Your task to perform on an android device: open app "AliExpress" (install if not already installed) Image 0: 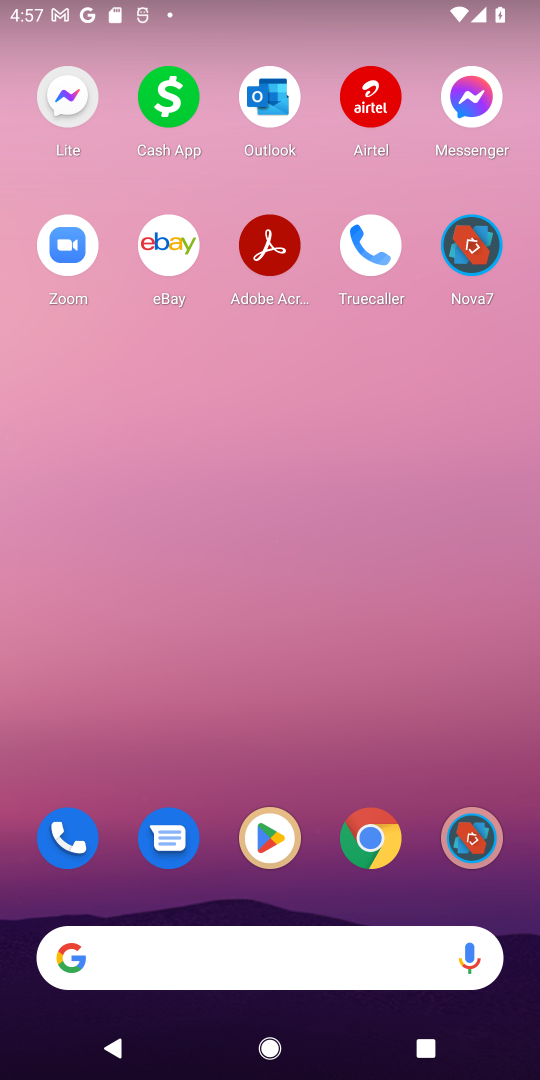
Step 0: drag from (239, 948) to (298, 88)
Your task to perform on an android device: open app "AliExpress" (install if not already installed) Image 1: 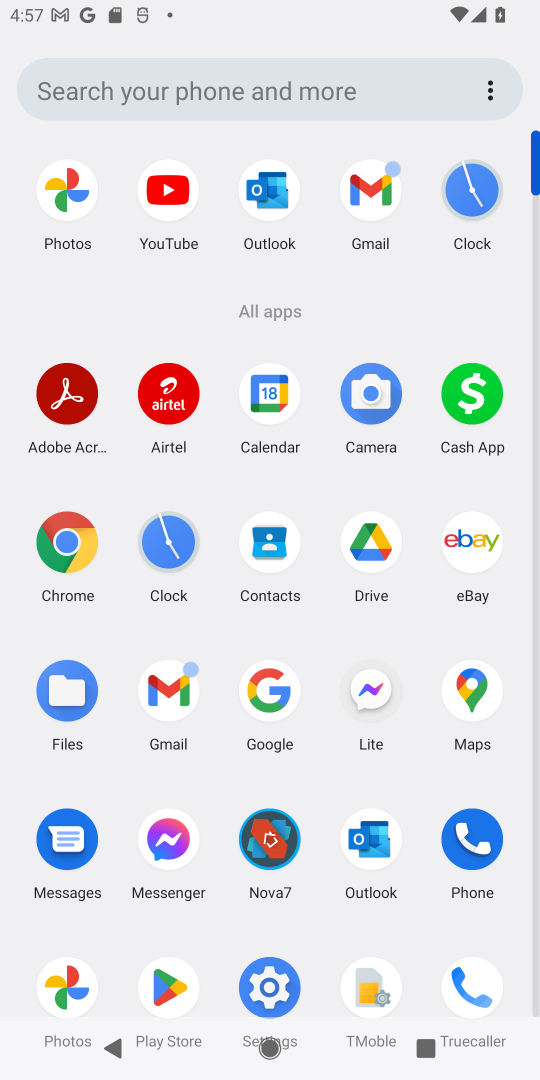
Step 1: click (164, 978)
Your task to perform on an android device: open app "AliExpress" (install if not already installed) Image 2: 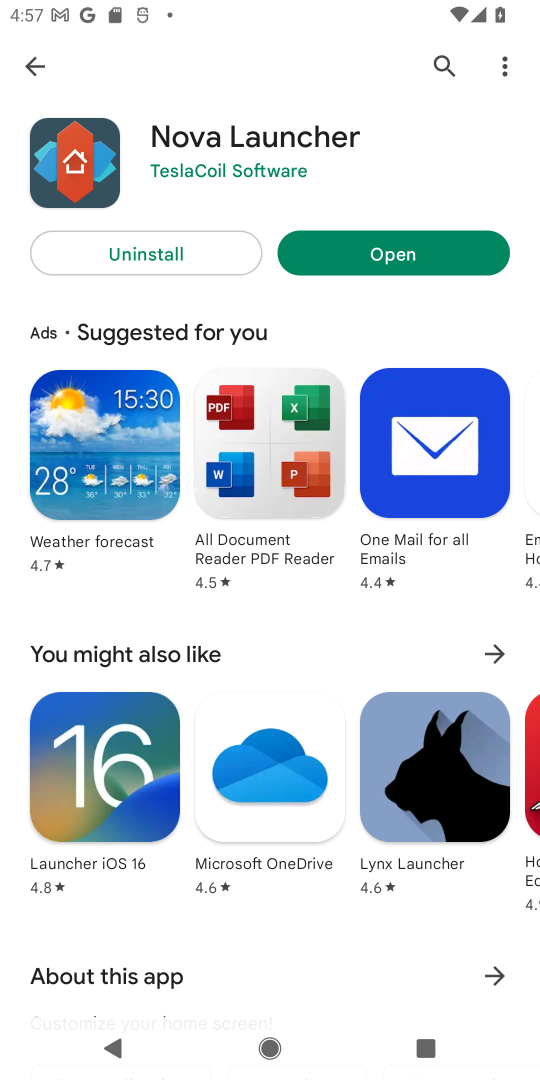
Step 2: press back button
Your task to perform on an android device: open app "AliExpress" (install if not already installed) Image 3: 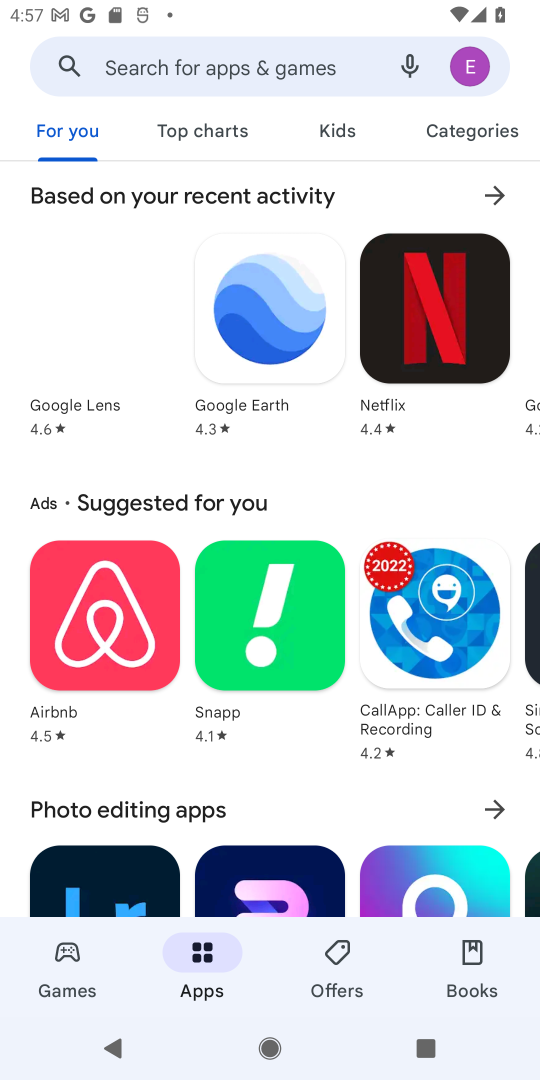
Step 3: click (269, 61)
Your task to perform on an android device: open app "AliExpress" (install if not already installed) Image 4: 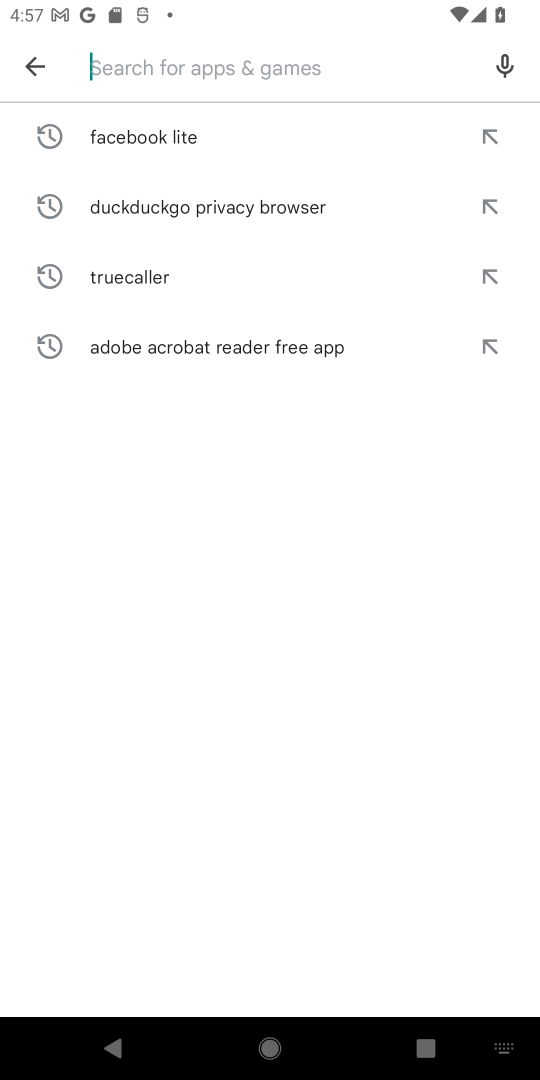
Step 4: type "AliExpress"
Your task to perform on an android device: open app "AliExpress" (install if not already installed) Image 5: 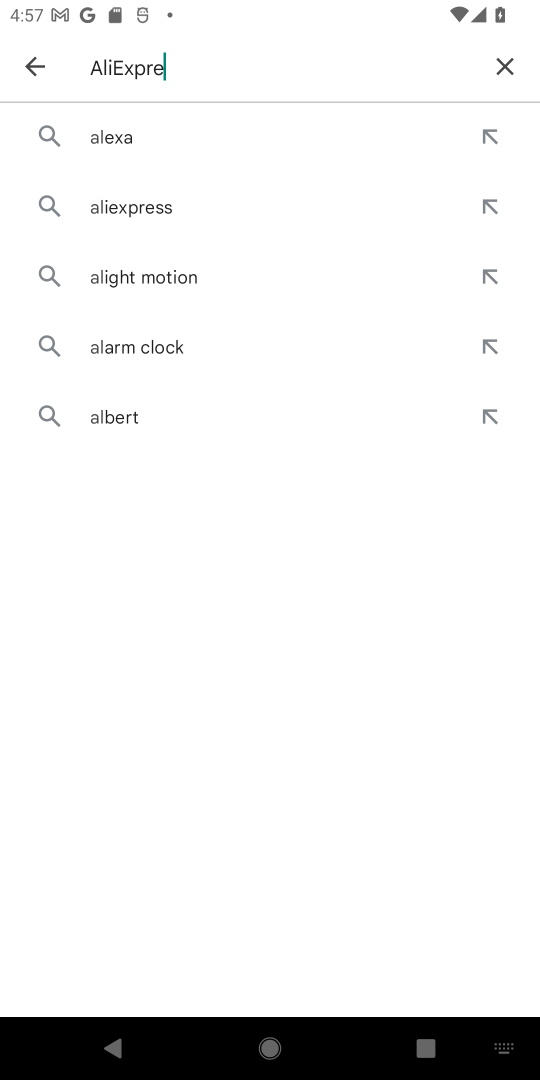
Step 5: type ""
Your task to perform on an android device: open app "AliExpress" (install if not already installed) Image 6: 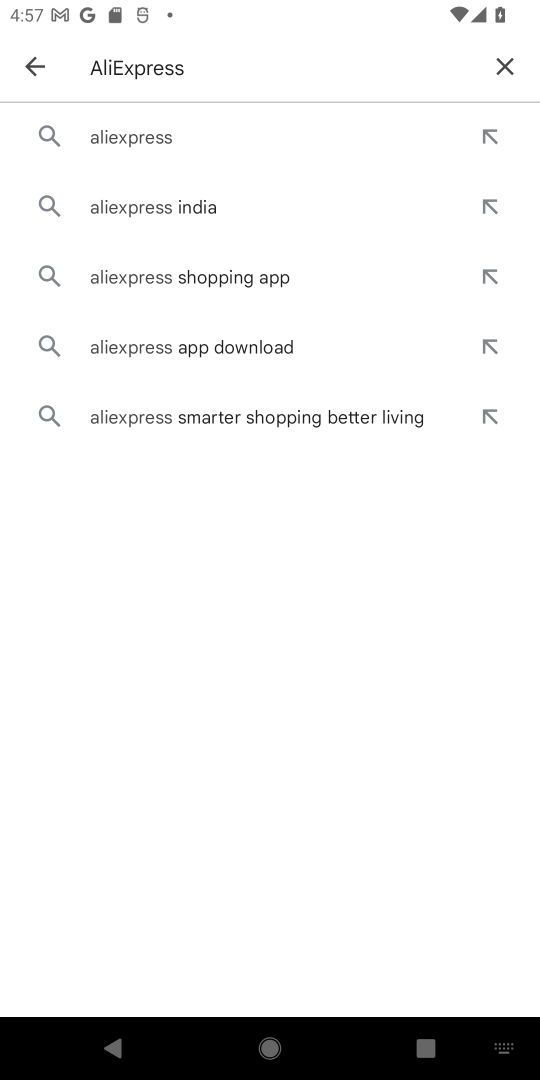
Step 6: click (140, 137)
Your task to perform on an android device: open app "AliExpress" (install if not already installed) Image 7: 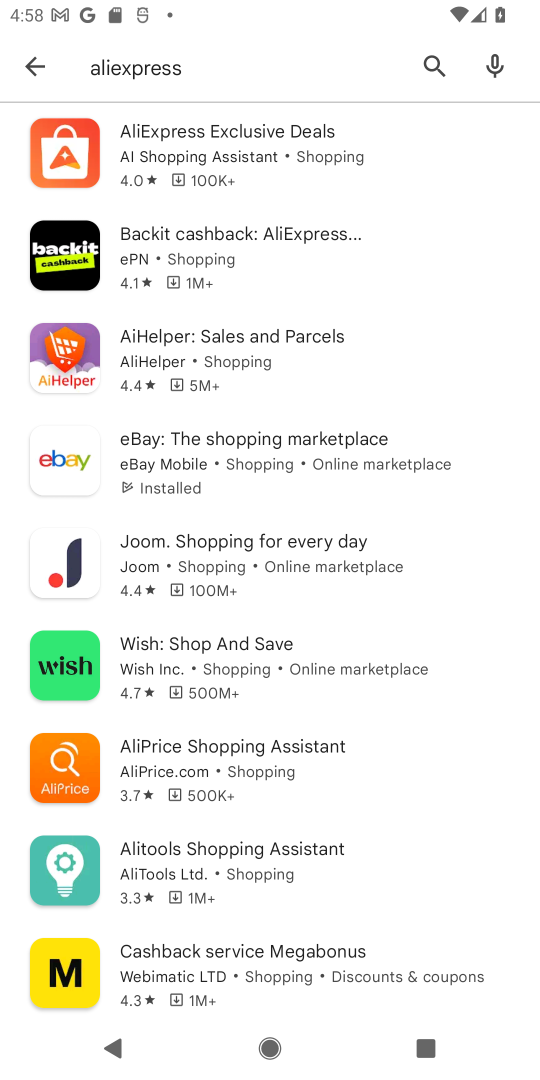
Step 7: click (193, 130)
Your task to perform on an android device: open app "AliExpress" (install if not already installed) Image 8: 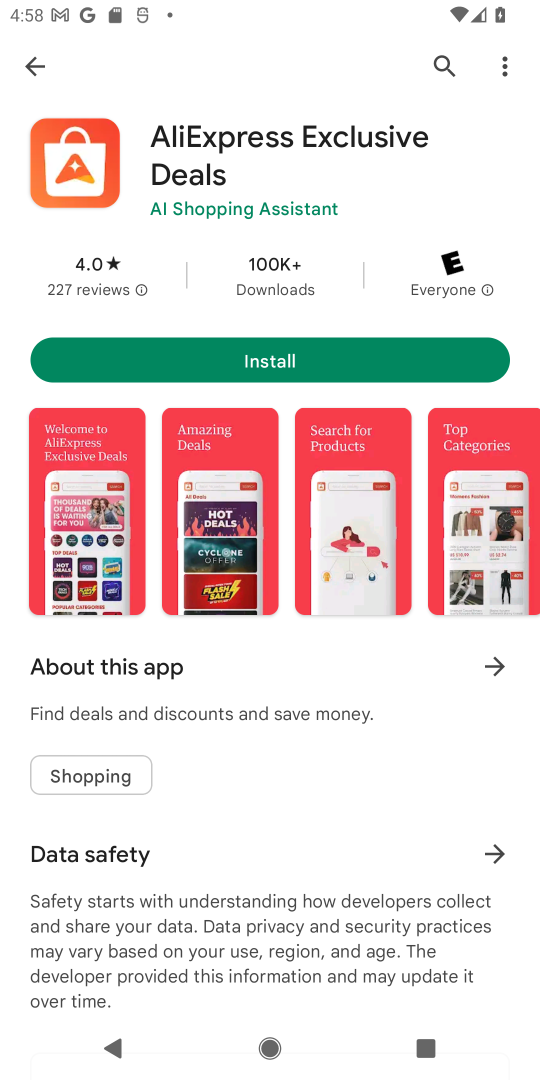
Step 8: click (247, 355)
Your task to perform on an android device: open app "AliExpress" (install if not already installed) Image 9: 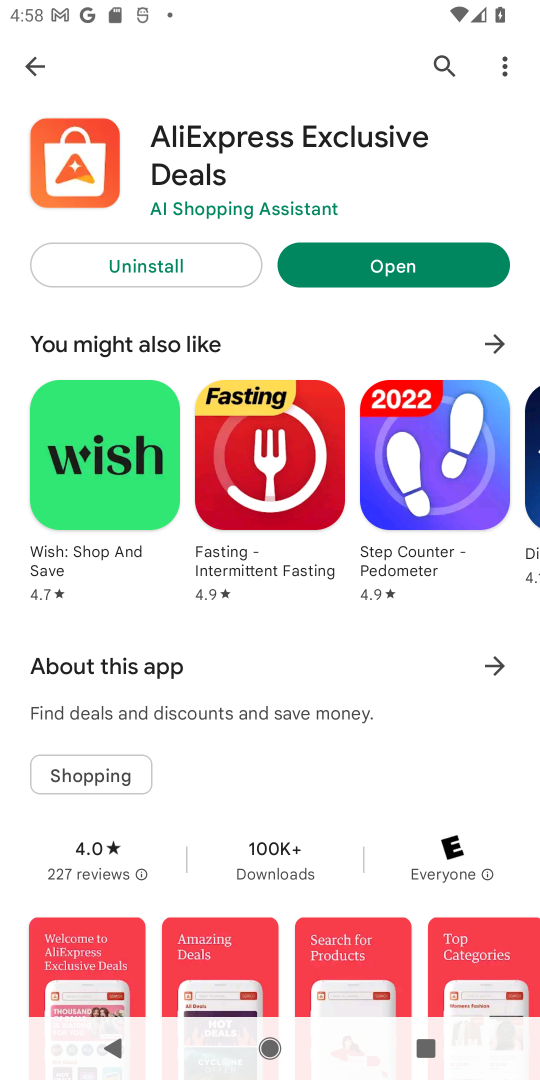
Step 9: click (403, 270)
Your task to perform on an android device: open app "AliExpress" (install if not already installed) Image 10: 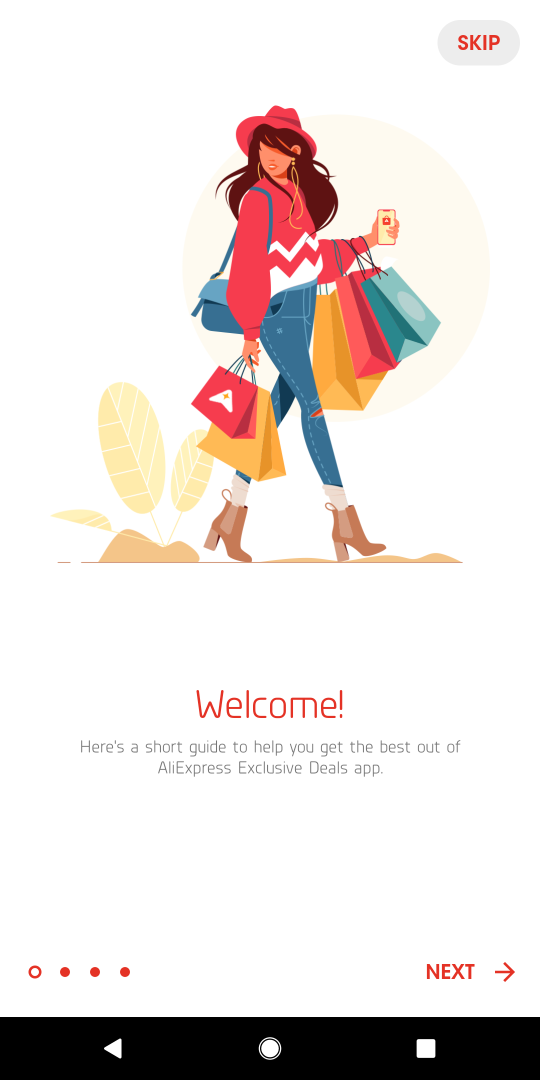
Step 10: click (493, 48)
Your task to perform on an android device: open app "AliExpress" (install if not already installed) Image 11: 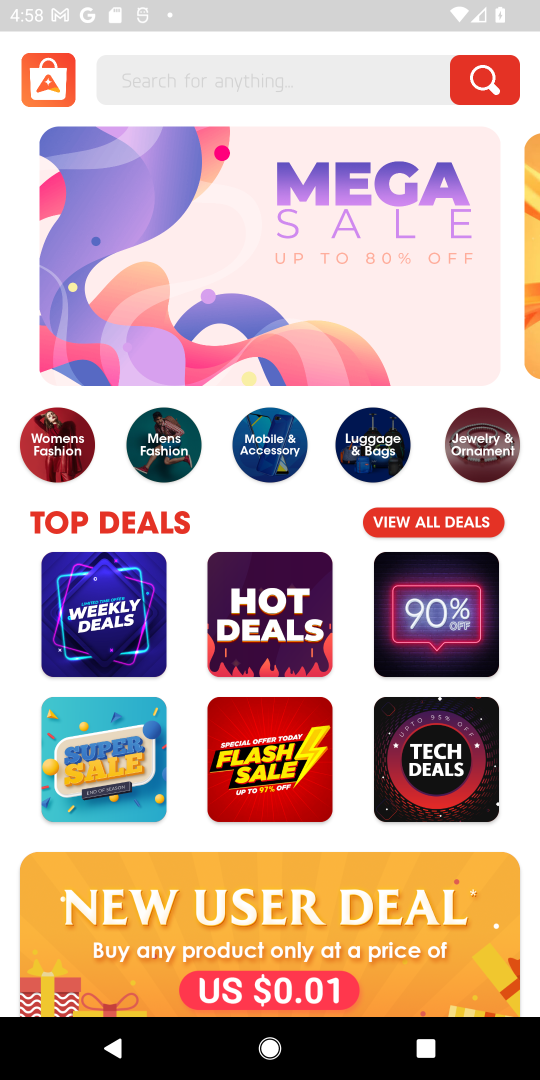
Step 11: task complete